Your task to perform on an android device: What is the news today? Image 0: 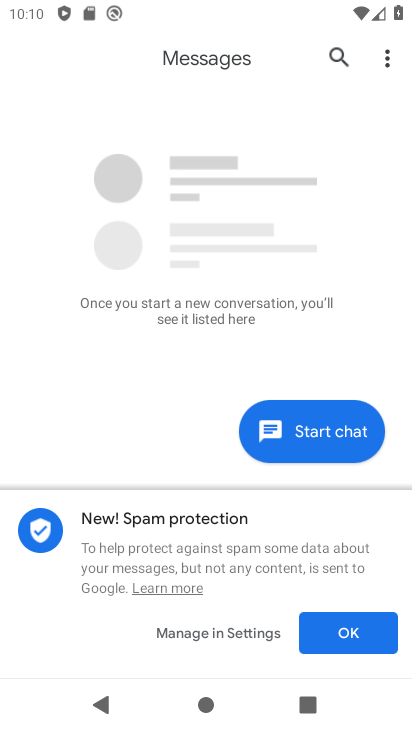
Step 0: press home button
Your task to perform on an android device: What is the news today? Image 1: 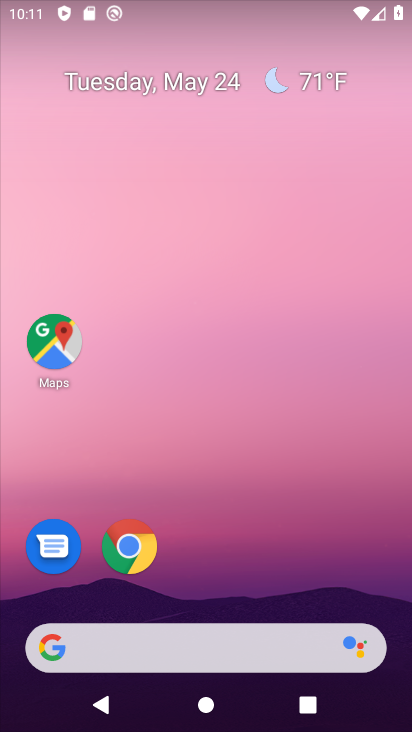
Step 1: drag from (231, 567) to (243, 151)
Your task to perform on an android device: What is the news today? Image 2: 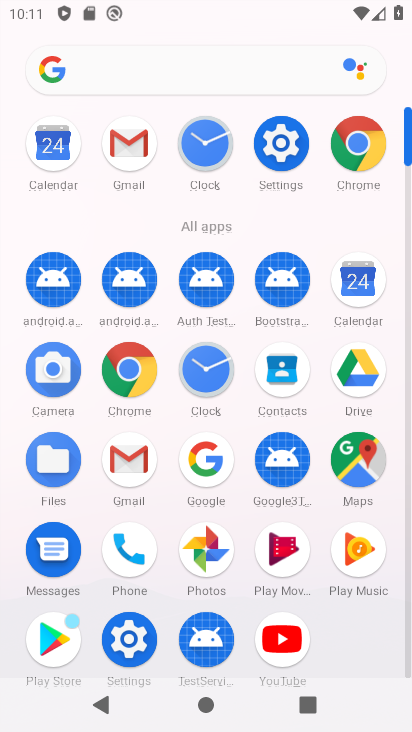
Step 2: click (363, 154)
Your task to perform on an android device: What is the news today? Image 3: 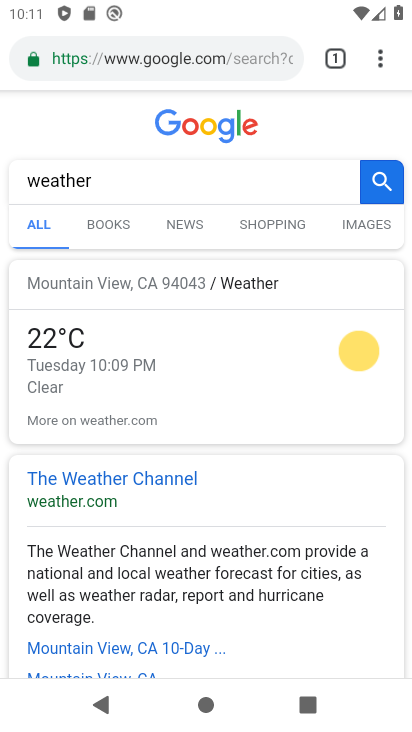
Step 3: click (150, 169)
Your task to perform on an android device: What is the news today? Image 4: 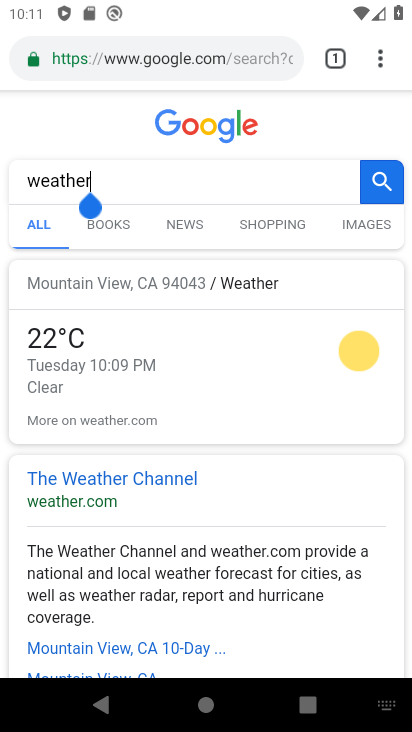
Step 4: click (209, 57)
Your task to perform on an android device: What is the news today? Image 5: 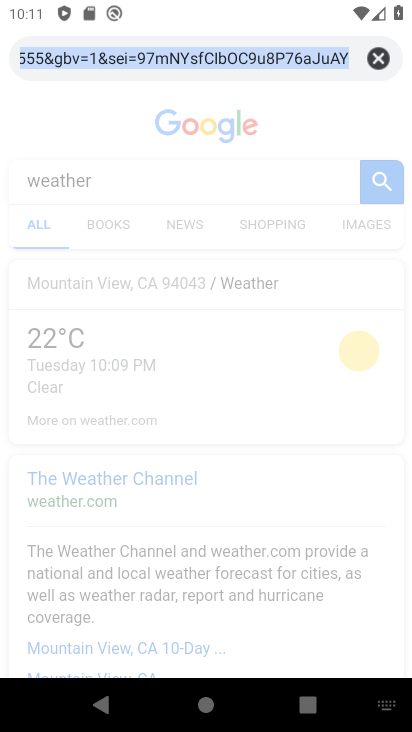
Step 5: type "news"
Your task to perform on an android device: What is the news today? Image 6: 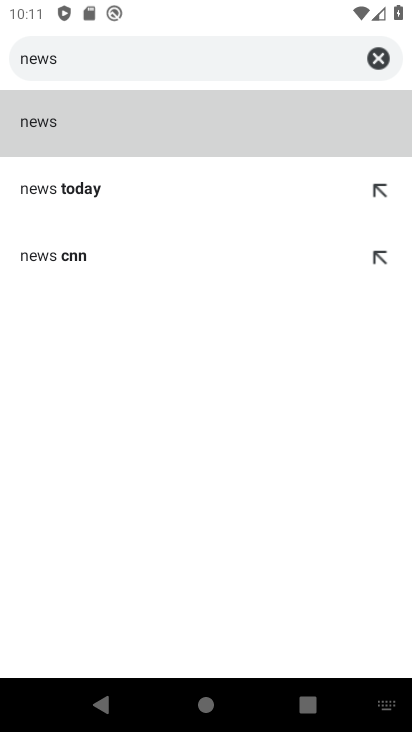
Step 6: click (43, 115)
Your task to perform on an android device: What is the news today? Image 7: 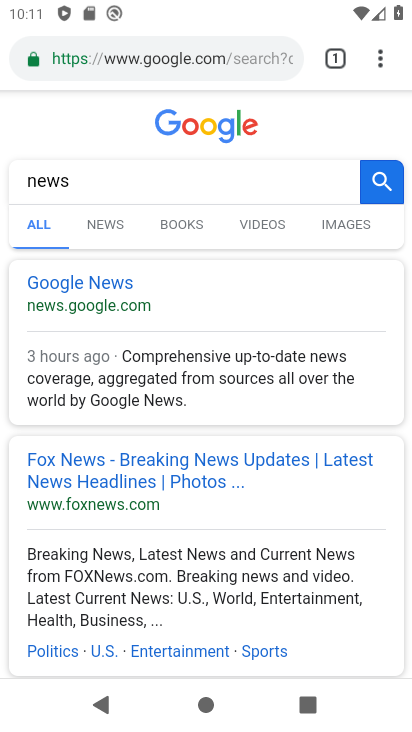
Step 7: click (113, 224)
Your task to perform on an android device: What is the news today? Image 8: 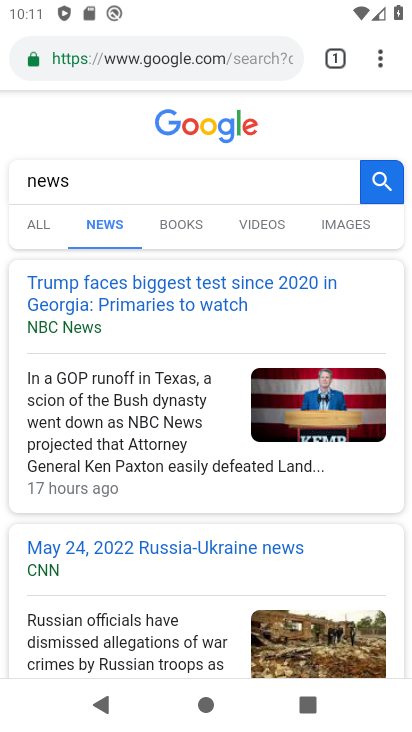
Step 8: task complete